Your task to perform on an android device: clear history in the chrome app Image 0: 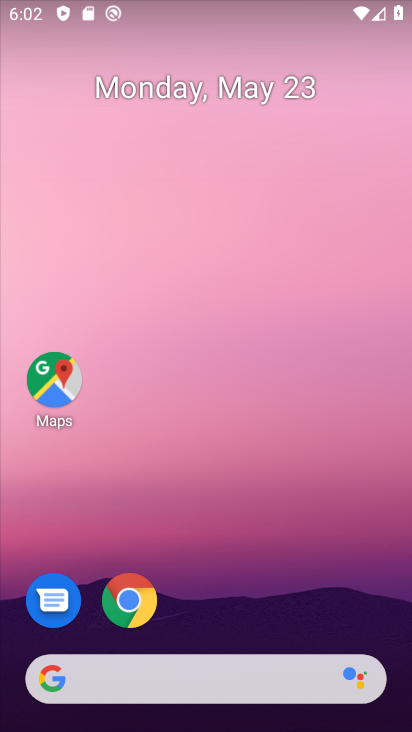
Step 0: drag from (282, 620) to (249, 237)
Your task to perform on an android device: clear history in the chrome app Image 1: 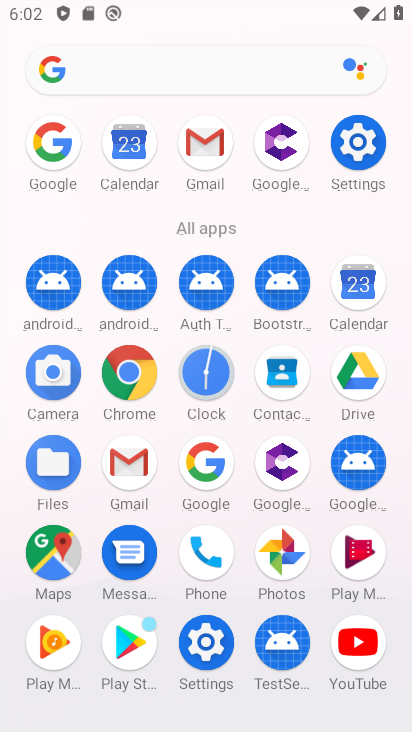
Step 1: click (132, 395)
Your task to perform on an android device: clear history in the chrome app Image 2: 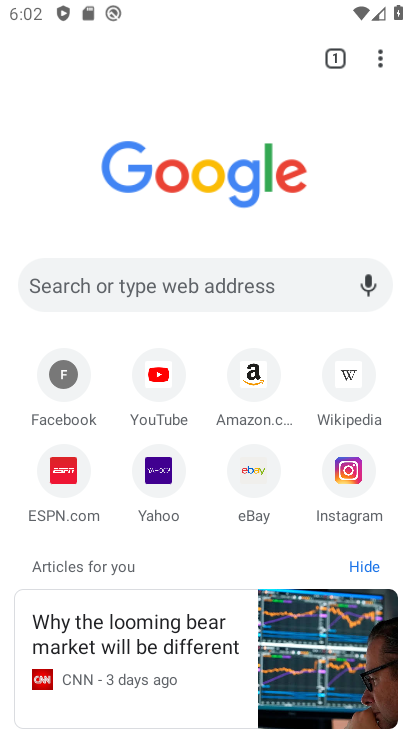
Step 2: click (382, 67)
Your task to perform on an android device: clear history in the chrome app Image 3: 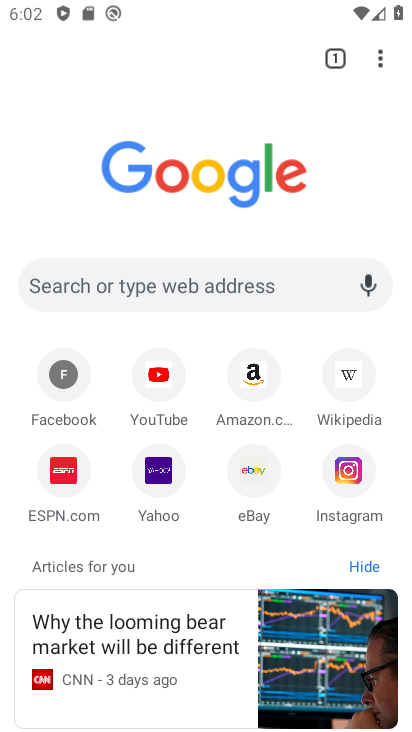
Step 3: click (382, 72)
Your task to perform on an android device: clear history in the chrome app Image 4: 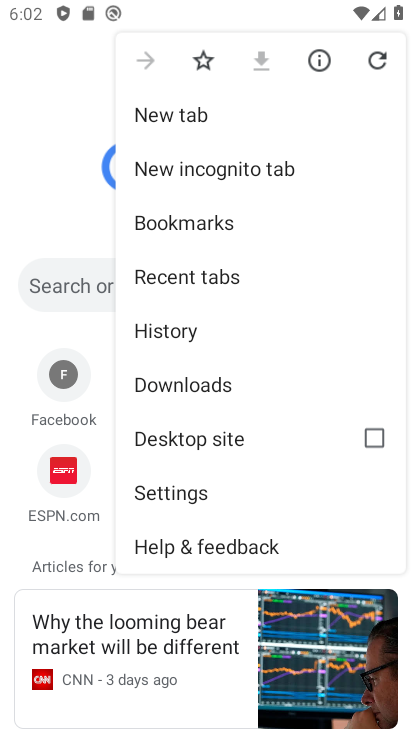
Step 4: click (212, 336)
Your task to perform on an android device: clear history in the chrome app Image 5: 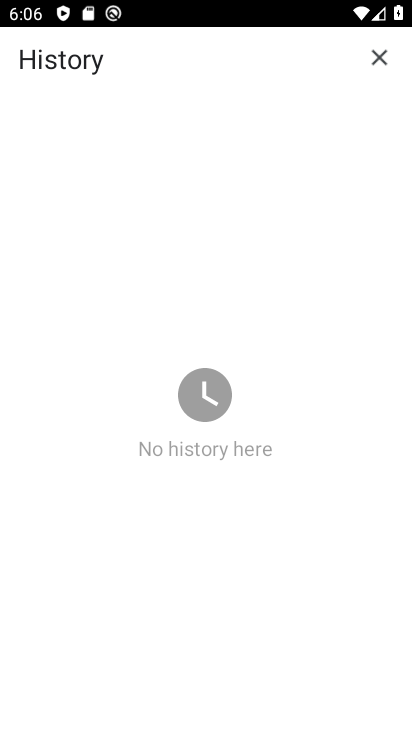
Step 5: task complete